Your task to perform on an android device: Open calendar and show me the second week of next month Image 0: 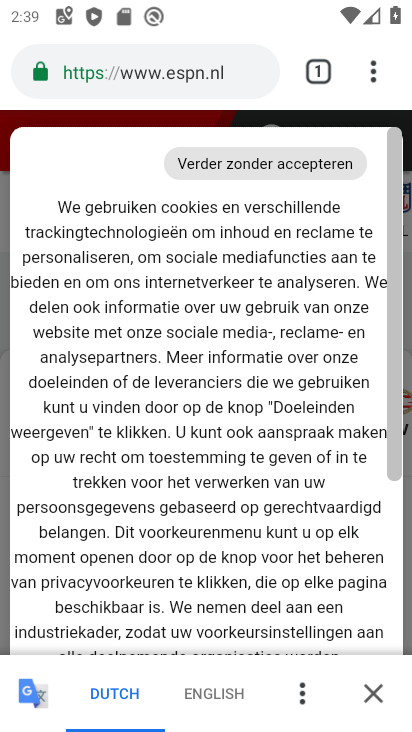
Step 0: press home button
Your task to perform on an android device: Open calendar and show me the second week of next month Image 1: 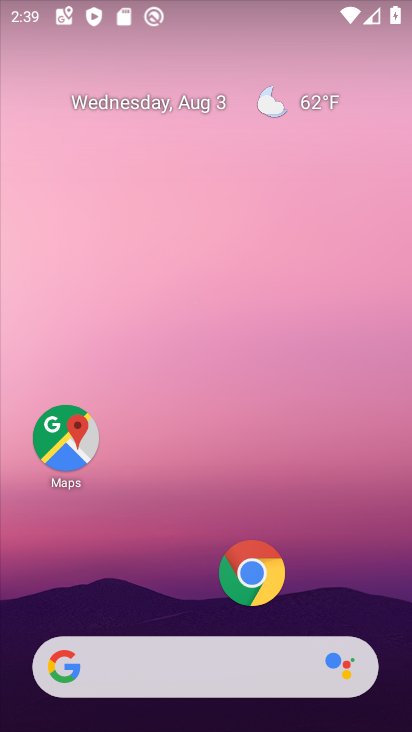
Step 1: drag from (168, 612) to (223, 35)
Your task to perform on an android device: Open calendar and show me the second week of next month Image 2: 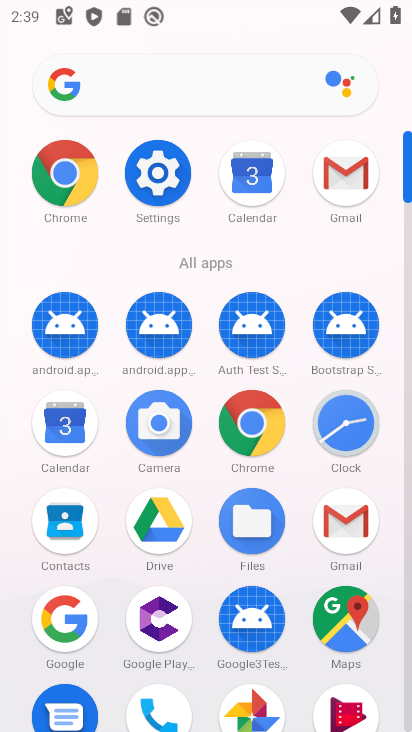
Step 2: click (63, 440)
Your task to perform on an android device: Open calendar and show me the second week of next month Image 3: 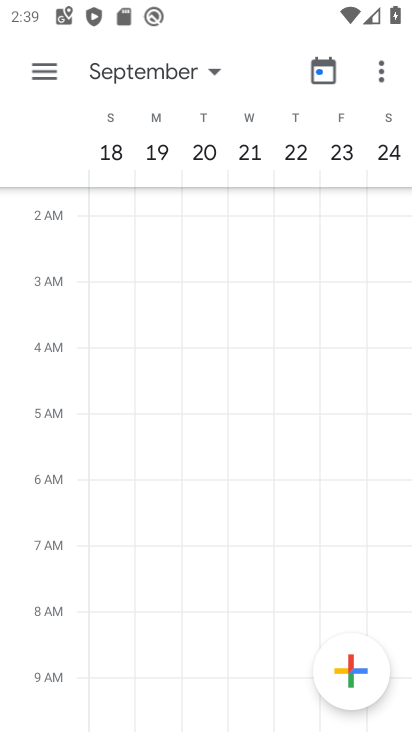
Step 3: task complete